Your task to perform on an android device: Open calendar and show me the third week of next month Image 0: 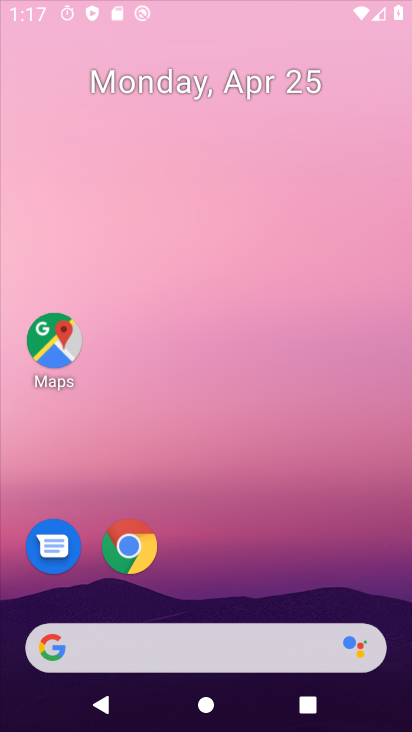
Step 0: drag from (206, 600) to (184, 11)
Your task to perform on an android device: Open calendar and show me the third week of next month Image 1: 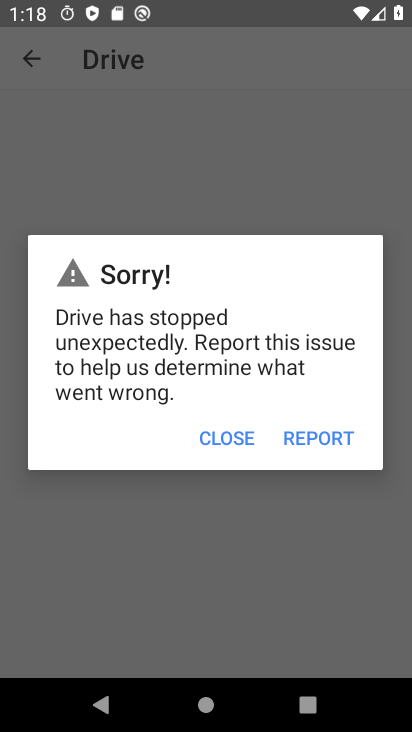
Step 1: press home button
Your task to perform on an android device: Open calendar and show me the third week of next month Image 2: 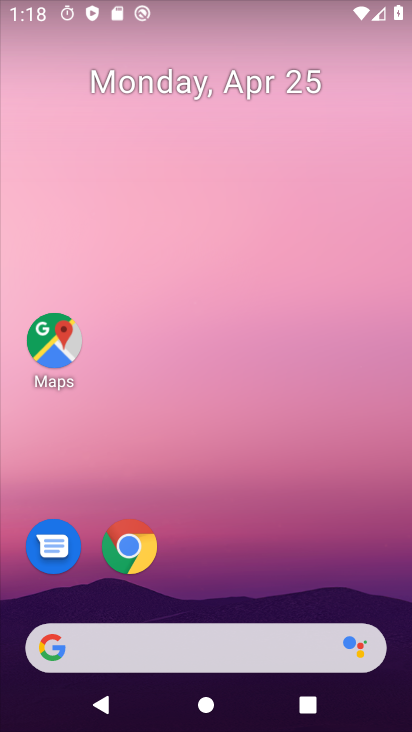
Step 2: drag from (201, 613) to (175, 43)
Your task to perform on an android device: Open calendar and show me the third week of next month Image 3: 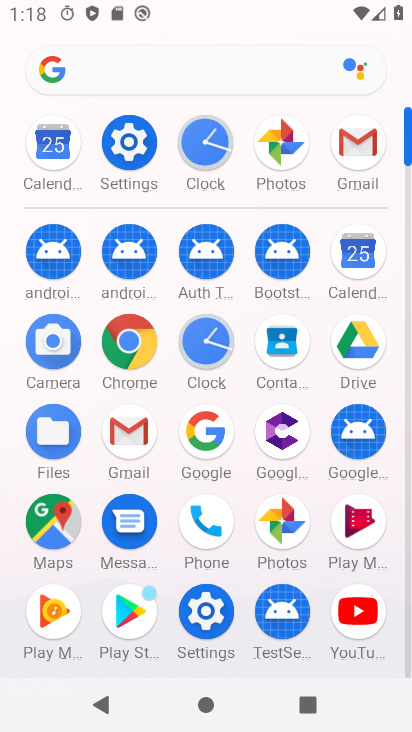
Step 3: click (44, 152)
Your task to perform on an android device: Open calendar and show me the third week of next month Image 4: 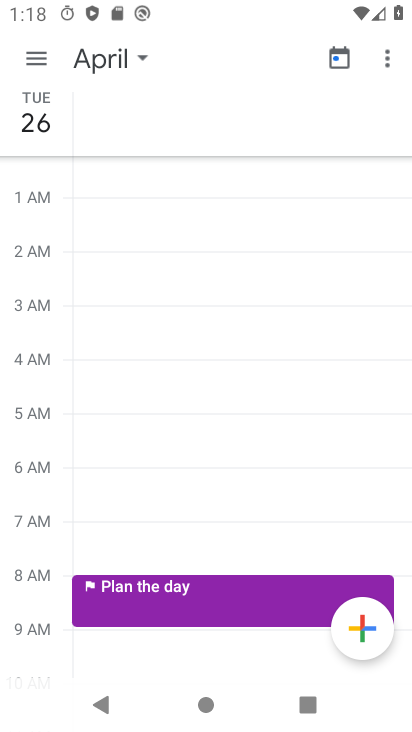
Step 4: click (34, 65)
Your task to perform on an android device: Open calendar and show me the third week of next month Image 5: 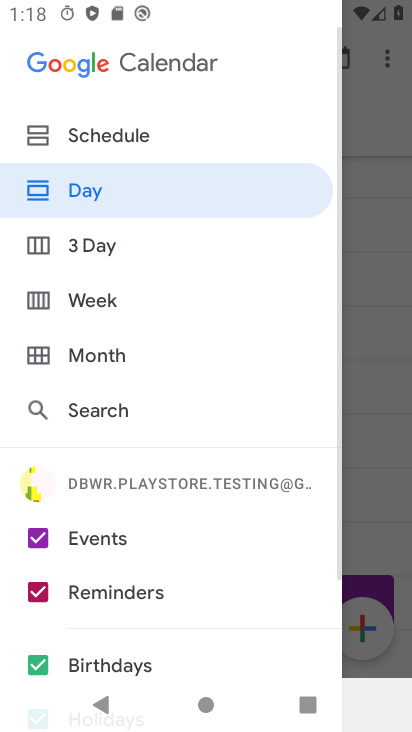
Step 5: click (91, 308)
Your task to perform on an android device: Open calendar and show me the third week of next month Image 6: 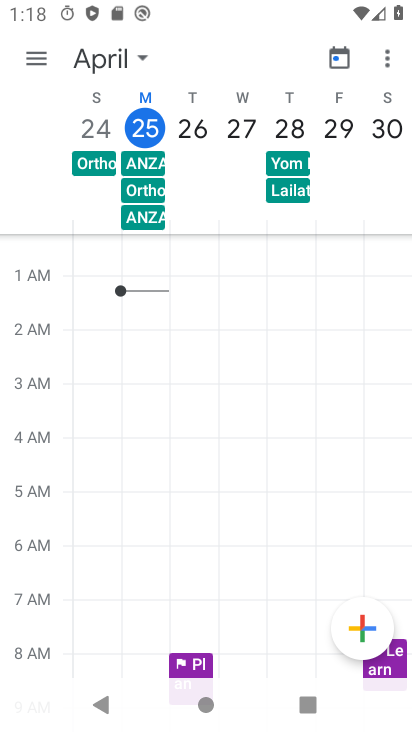
Step 6: task complete